Your task to perform on an android device: turn on wifi Image 0: 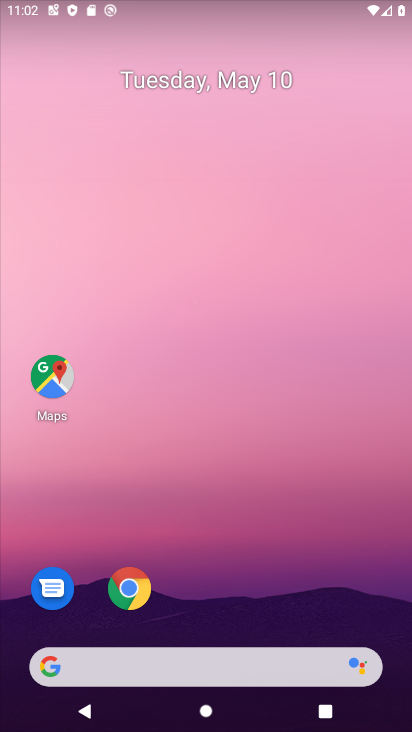
Step 0: drag from (282, 695) to (106, 96)
Your task to perform on an android device: turn on wifi Image 1: 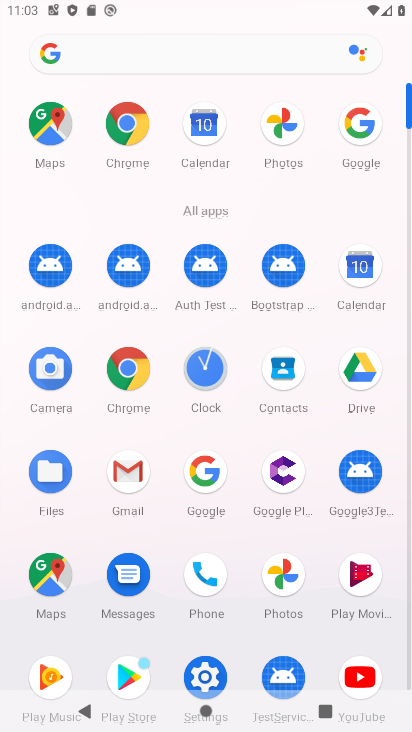
Step 1: click (203, 668)
Your task to perform on an android device: turn on wifi Image 2: 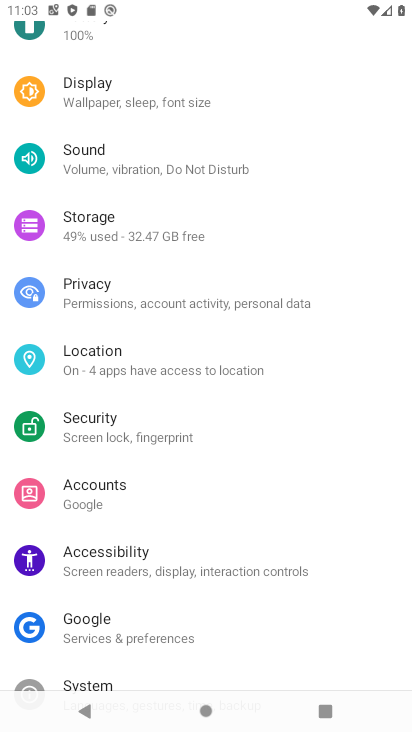
Step 2: drag from (105, 139) to (124, 620)
Your task to perform on an android device: turn on wifi Image 3: 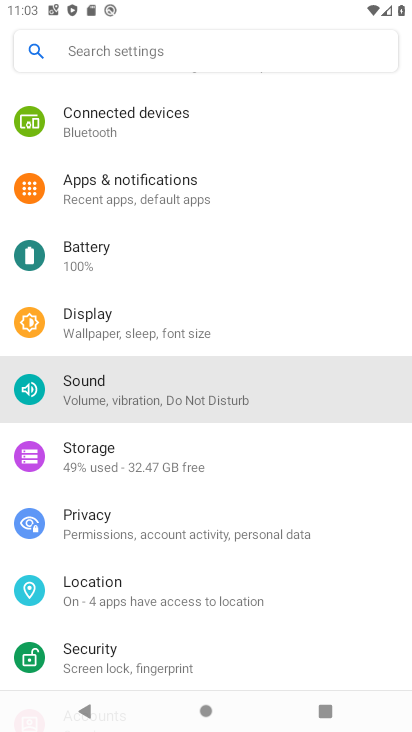
Step 3: drag from (118, 201) to (115, 531)
Your task to perform on an android device: turn on wifi Image 4: 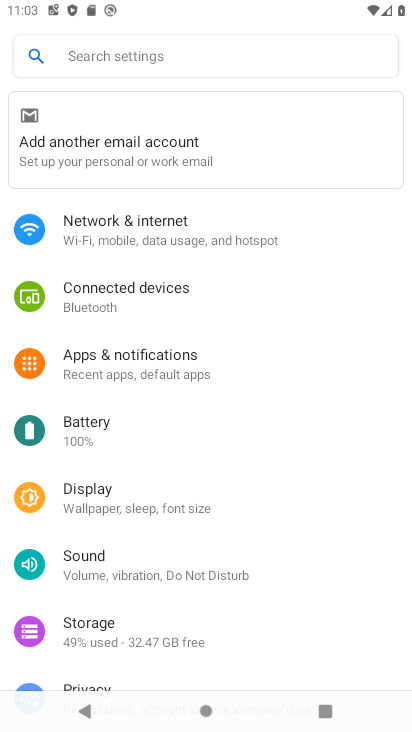
Step 4: click (141, 230)
Your task to perform on an android device: turn on wifi Image 5: 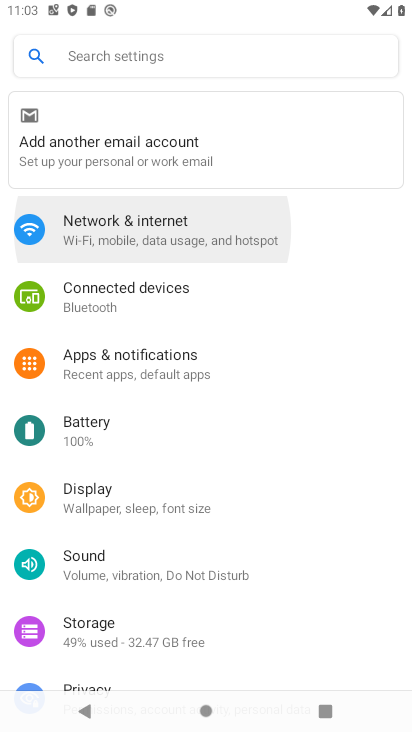
Step 5: click (141, 230)
Your task to perform on an android device: turn on wifi Image 6: 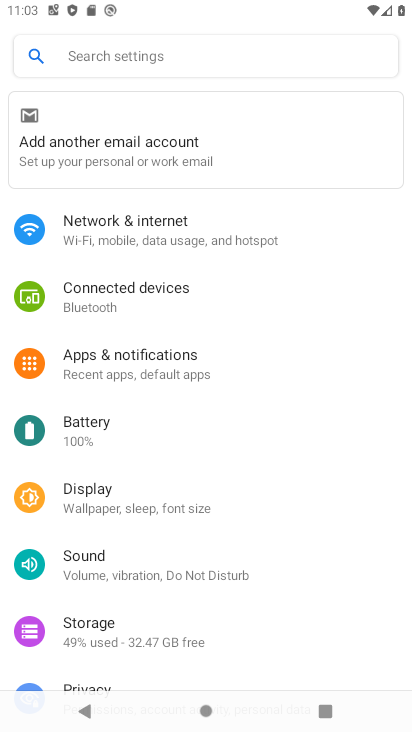
Step 6: click (140, 231)
Your task to perform on an android device: turn on wifi Image 7: 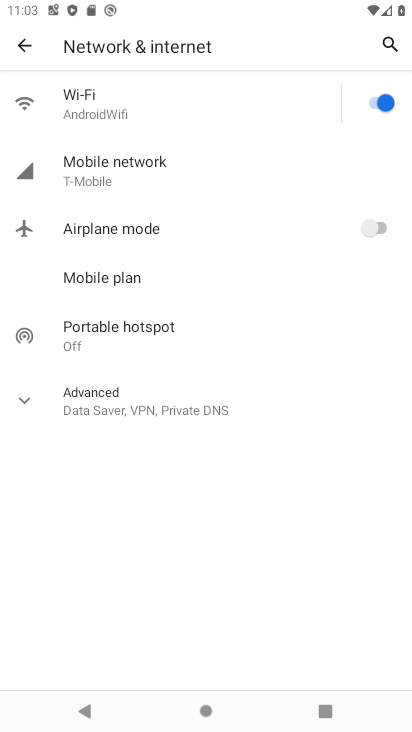
Step 7: task complete